Your task to perform on an android device: Search for Italian restaurants on Maps Image 0: 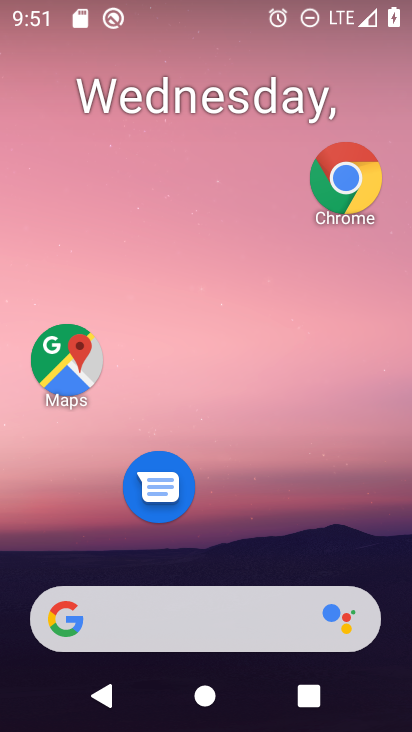
Step 0: drag from (253, 589) to (252, 138)
Your task to perform on an android device: Search for Italian restaurants on Maps Image 1: 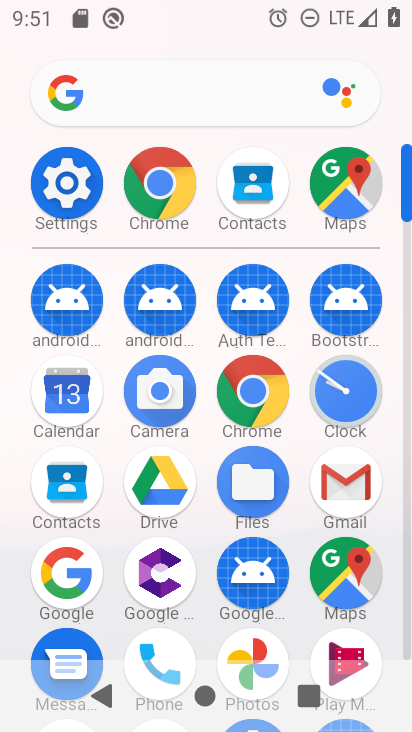
Step 1: click (351, 581)
Your task to perform on an android device: Search for Italian restaurants on Maps Image 2: 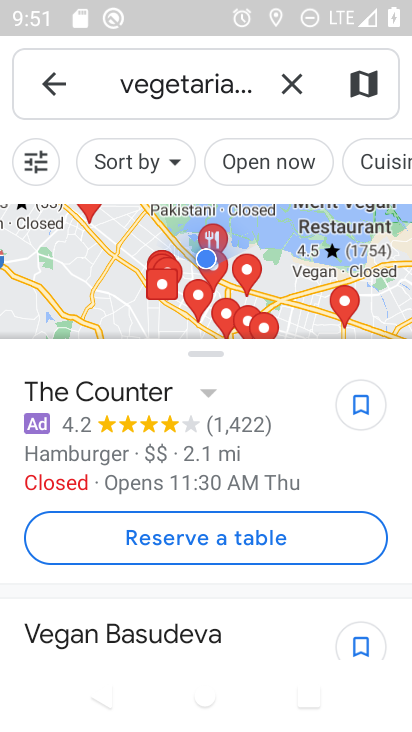
Step 2: click (285, 85)
Your task to perform on an android device: Search for Italian restaurants on Maps Image 3: 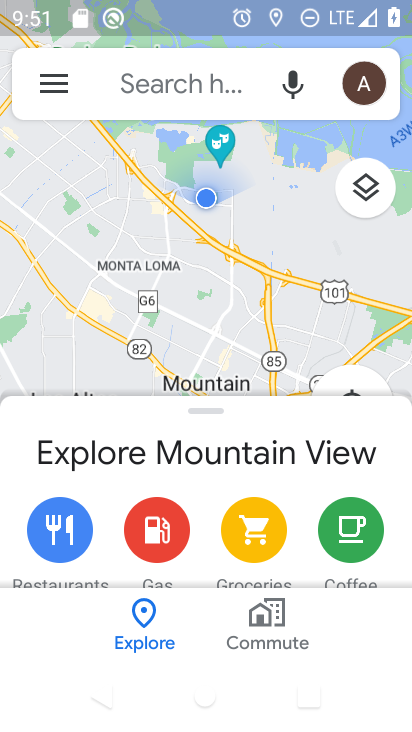
Step 3: click (205, 86)
Your task to perform on an android device: Search for Italian restaurants on Maps Image 4: 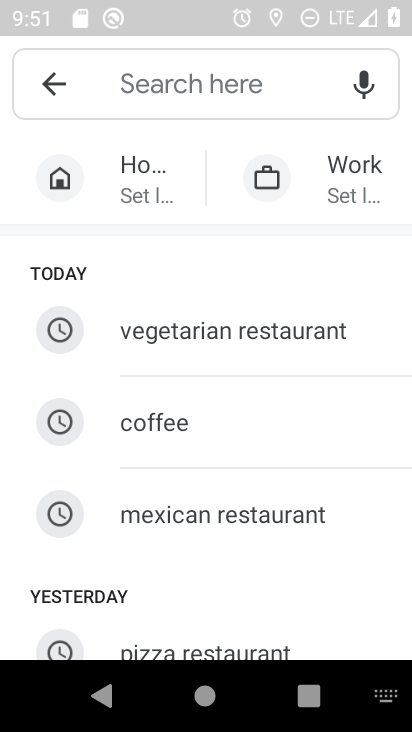
Step 4: drag from (247, 561) to (293, 153)
Your task to perform on an android device: Search for Italian restaurants on Maps Image 5: 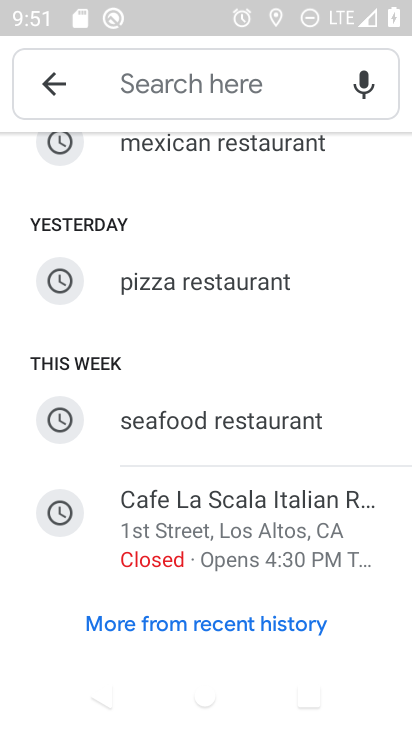
Step 5: click (200, 100)
Your task to perform on an android device: Search for Italian restaurants on Maps Image 6: 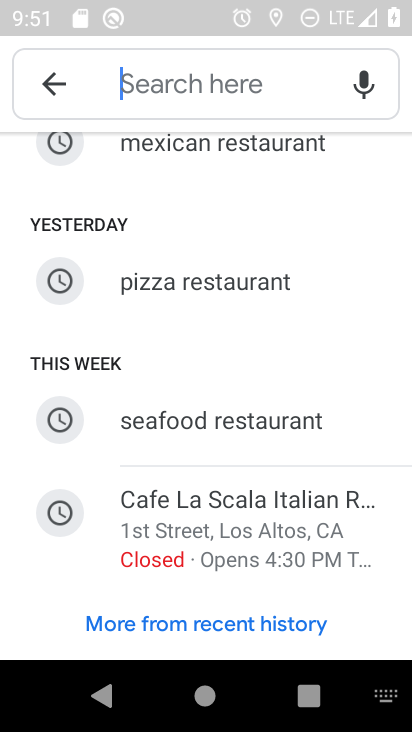
Step 6: type "italian restaurants"
Your task to perform on an android device: Search for Italian restaurants on Maps Image 7: 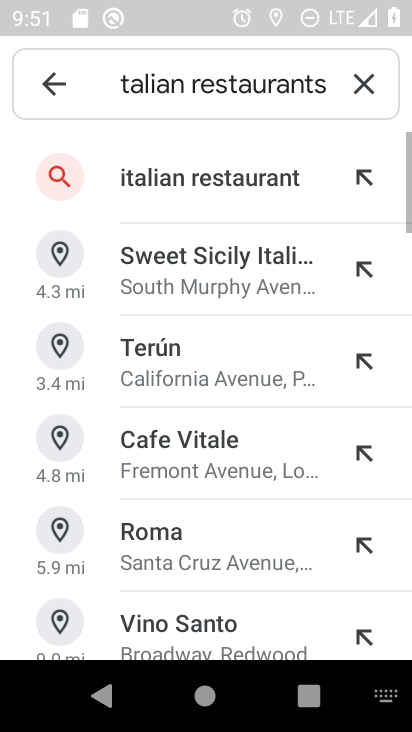
Step 7: click (206, 174)
Your task to perform on an android device: Search for Italian restaurants on Maps Image 8: 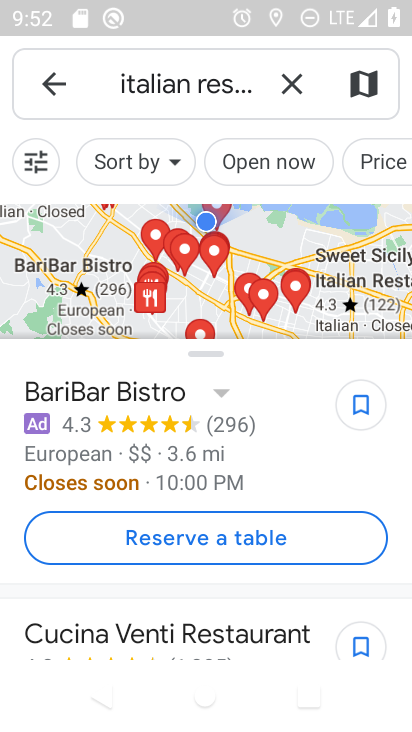
Step 8: task complete